Your task to perform on an android device: Open location settings Image 0: 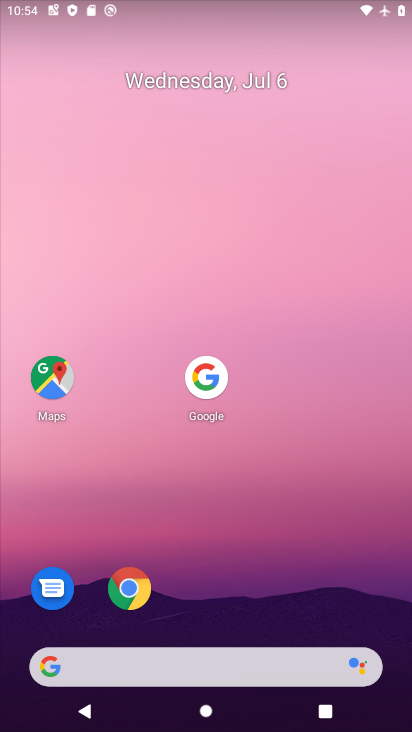
Step 0: drag from (231, 673) to (365, 95)
Your task to perform on an android device: Open location settings Image 1: 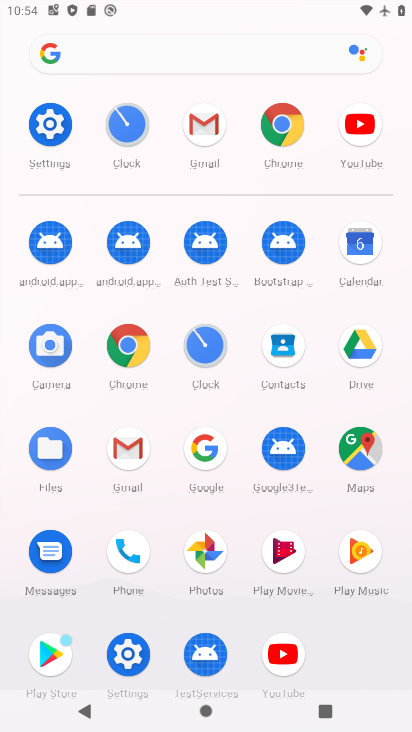
Step 1: click (50, 134)
Your task to perform on an android device: Open location settings Image 2: 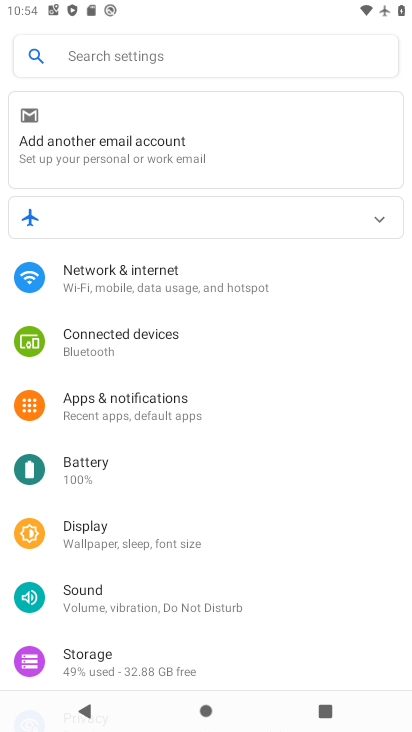
Step 2: drag from (207, 616) to (356, 157)
Your task to perform on an android device: Open location settings Image 3: 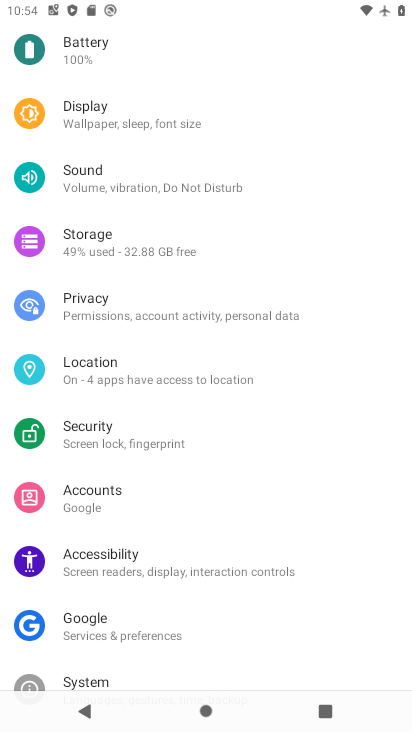
Step 3: click (130, 368)
Your task to perform on an android device: Open location settings Image 4: 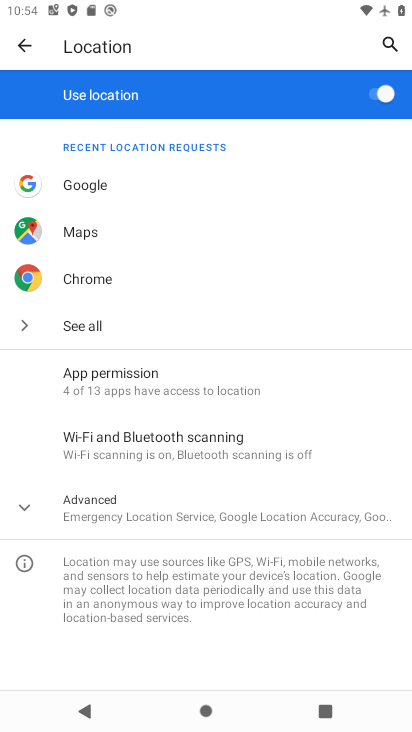
Step 4: task complete